Your task to perform on an android device: Check the weather Image 0: 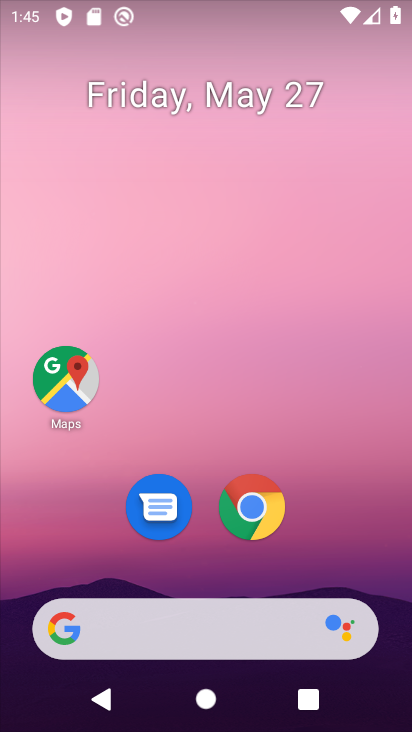
Step 0: drag from (193, 527) to (158, 12)
Your task to perform on an android device: Check the weather Image 1: 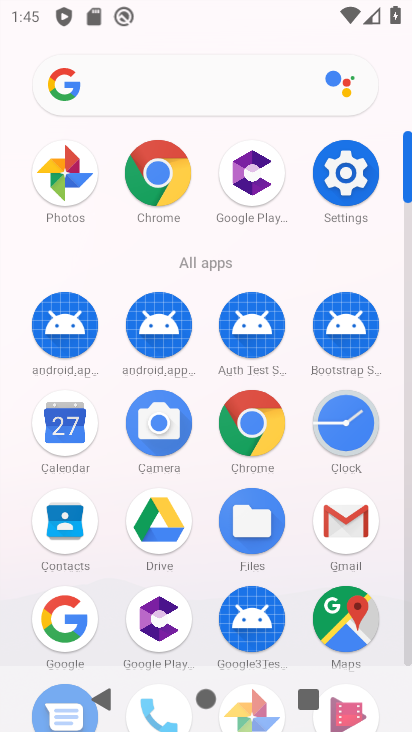
Step 1: click (140, 100)
Your task to perform on an android device: Check the weather Image 2: 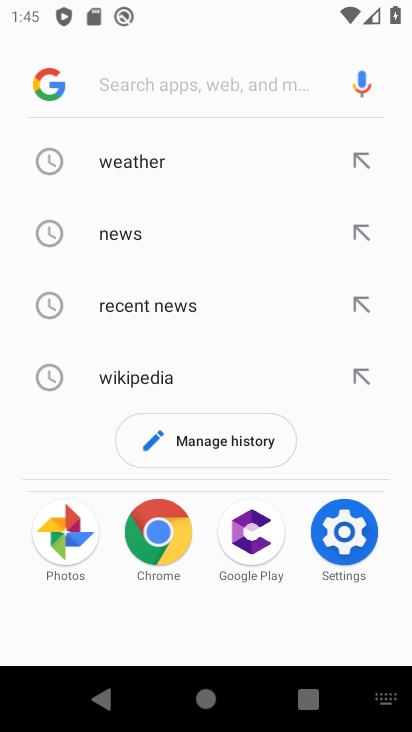
Step 2: click (151, 157)
Your task to perform on an android device: Check the weather Image 3: 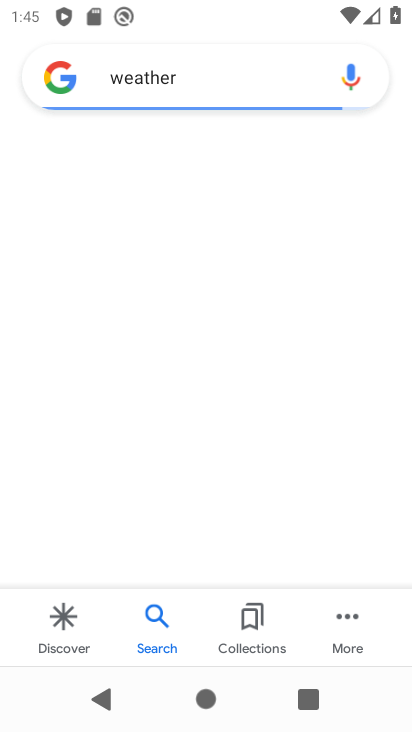
Step 3: task complete